Your task to perform on an android device: delete a single message in the gmail app Image 0: 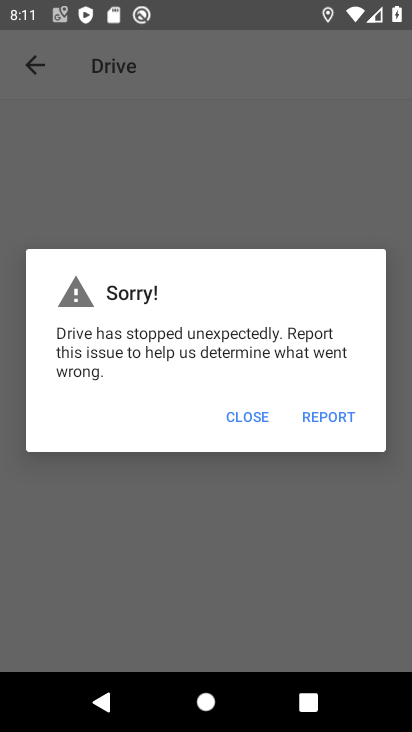
Step 0: press home button
Your task to perform on an android device: delete a single message in the gmail app Image 1: 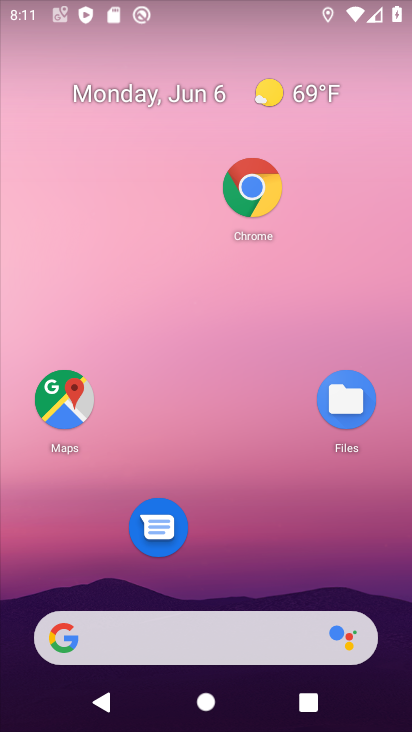
Step 1: drag from (247, 543) to (263, 33)
Your task to perform on an android device: delete a single message in the gmail app Image 2: 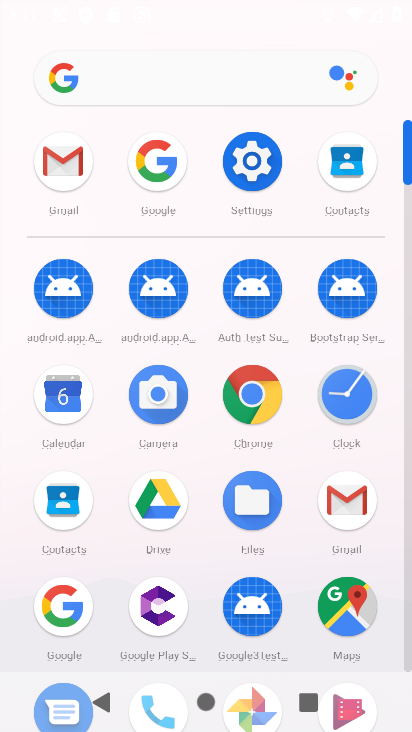
Step 2: click (66, 147)
Your task to perform on an android device: delete a single message in the gmail app Image 3: 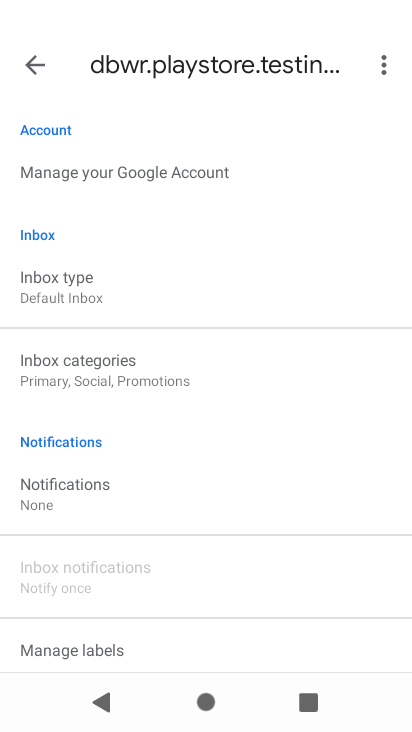
Step 3: press back button
Your task to perform on an android device: delete a single message in the gmail app Image 4: 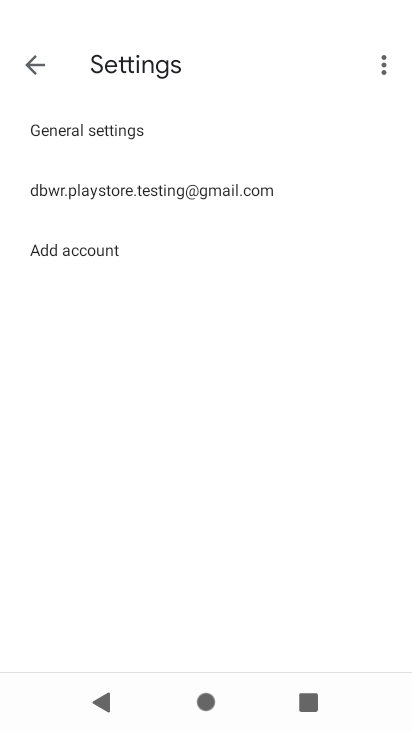
Step 4: press back button
Your task to perform on an android device: delete a single message in the gmail app Image 5: 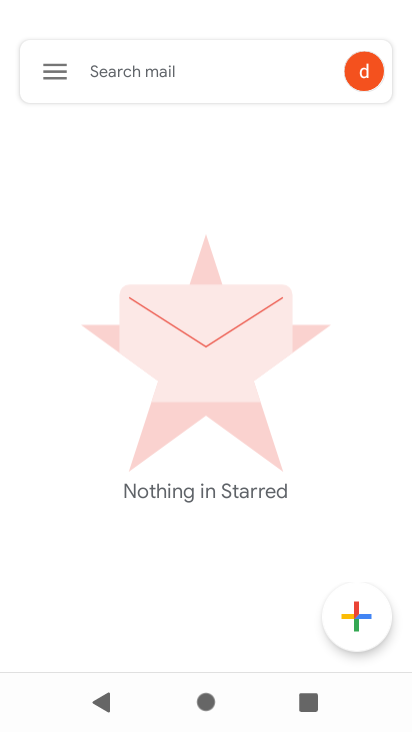
Step 5: drag from (39, 64) to (144, 181)
Your task to perform on an android device: delete a single message in the gmail app Image 6: 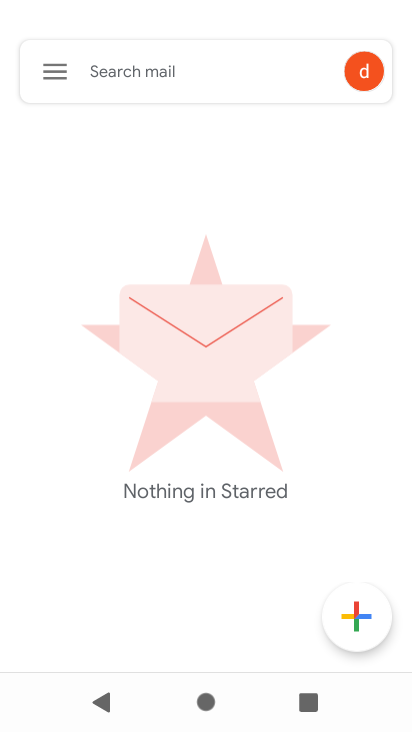
Step 6: click (53, 69)
Your task to perform on an android device: delete a single message in the gmail app Image 7: 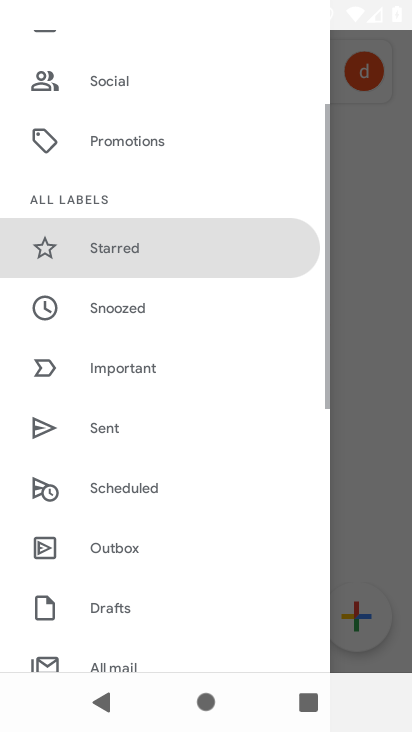
Step 7: drag from (145, 530) to (153, 324)
Your task to perform on an android device: delete a single message in the gmail app Image 8: 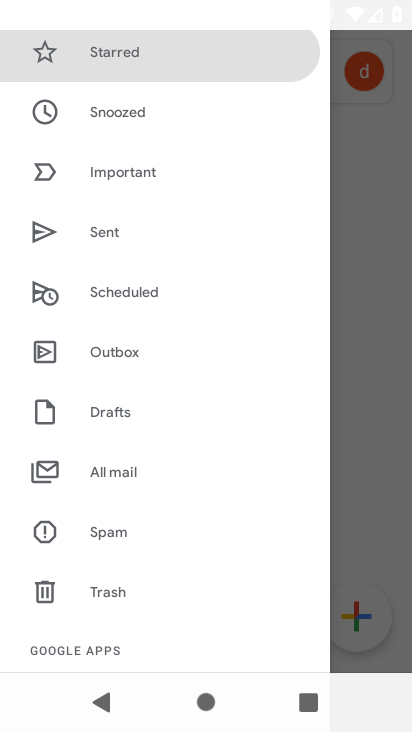
Step 8: click (94, 480)
Your task to perform on an android device: delete a single message in the gmail app Image 9: 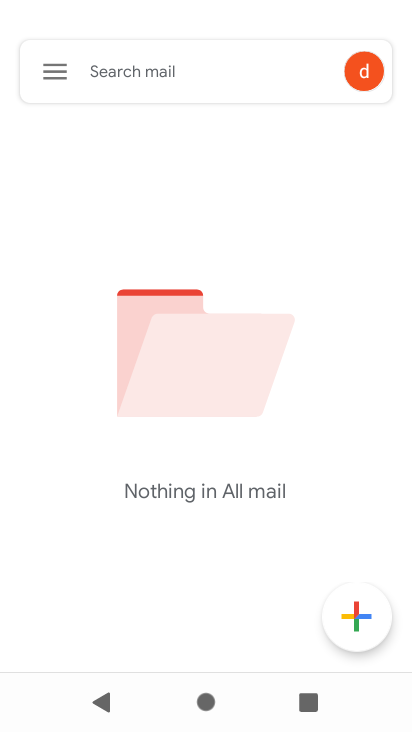
Step 9: task complete